Your task to perform on an android device: Clear the shopping cart on amazon. Image 0: 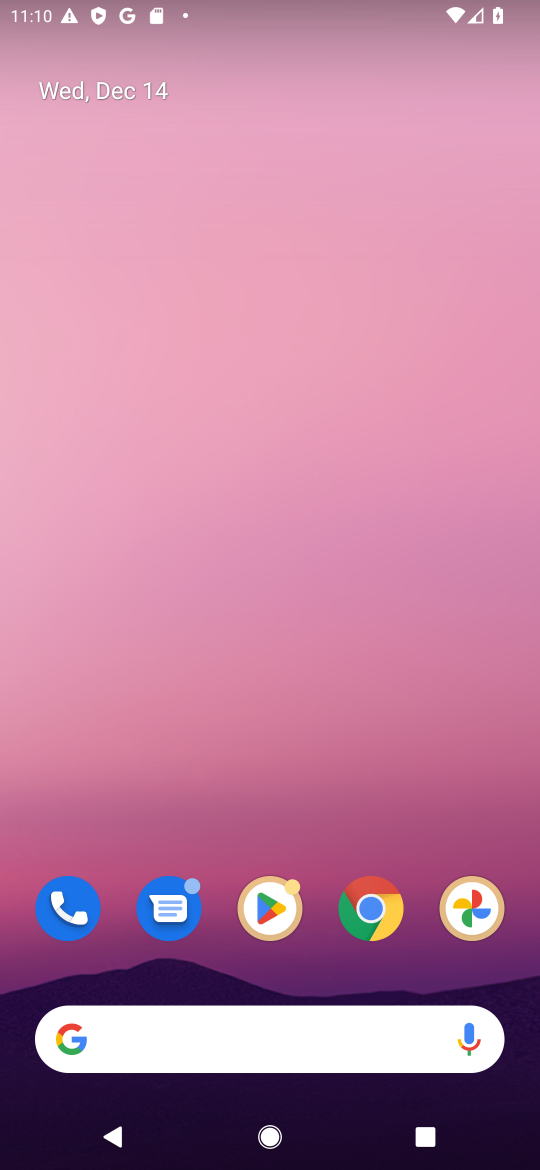
Step 0: click (245, 1057)
Your task to perform on an android device: Clear the shopping cart on amazon. Image 1: 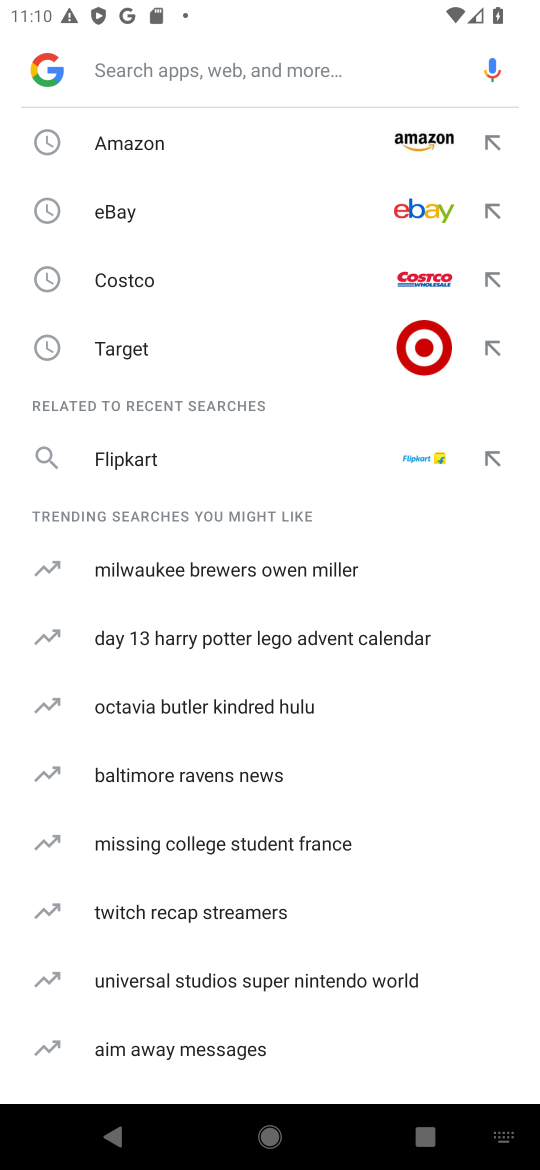
Step 1: click (155, 131)
Your task to perform on an android device: Clear the shopping cart on amazon. Image 2: 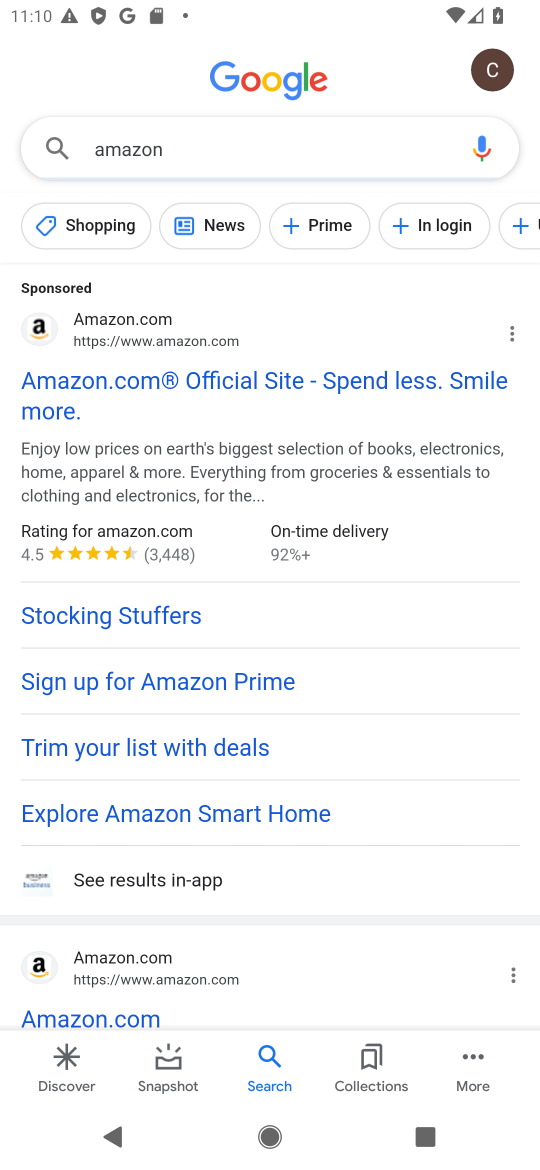
Step 2: click (89, 372)
Your task to perform on an android device: Clear the shopping cart on amazon. Image 3: 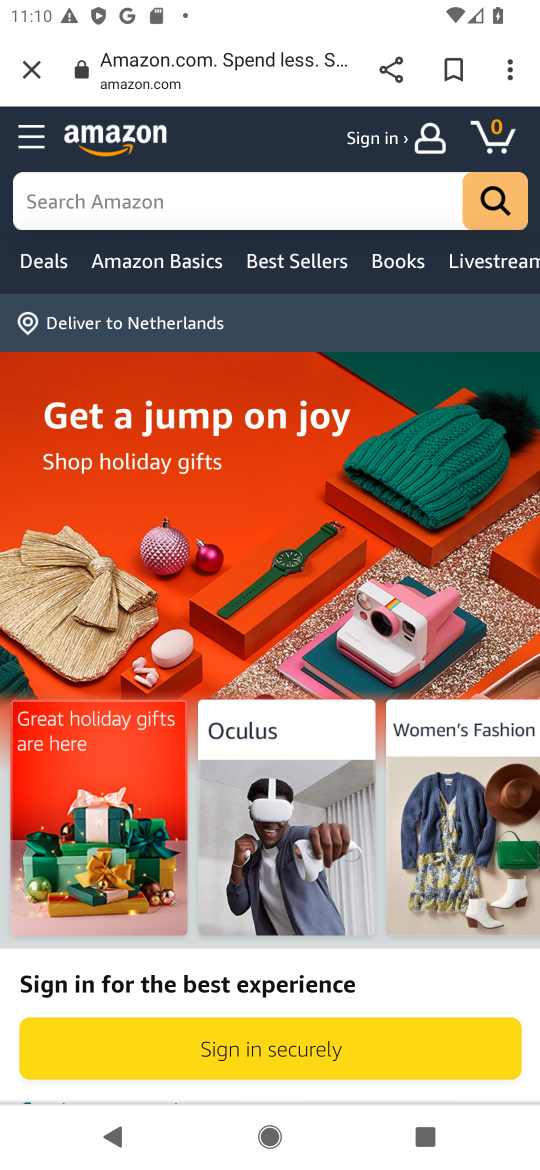
Step 3: click (474, 134)
Your task to perform on an android device: Clear the shopping cart on amazon. Image 4: 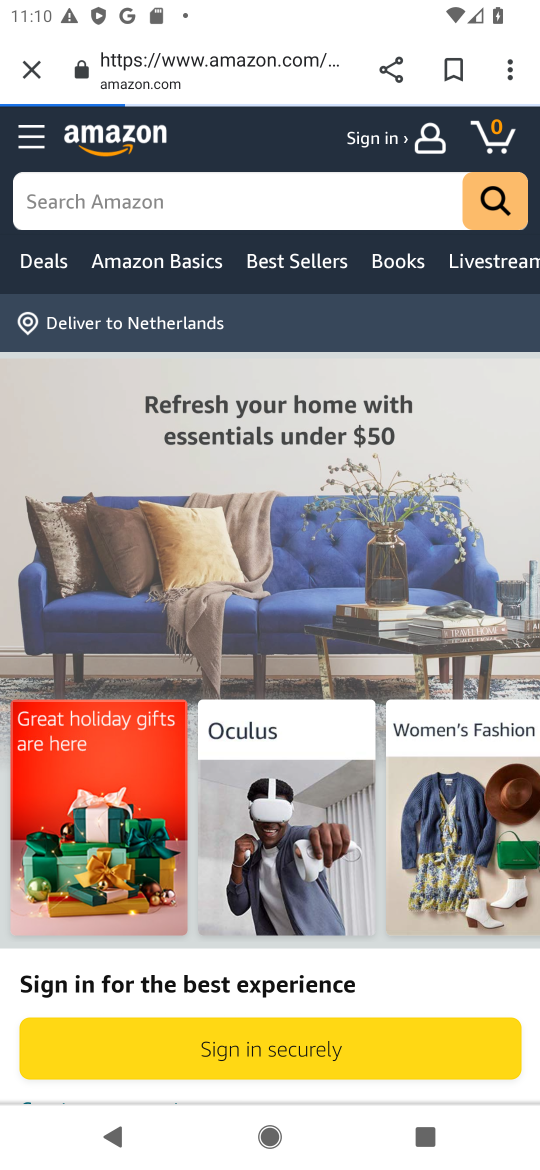
Step 4: task complete